Your task to perform on an android device: Open Reddit.com Image 0: 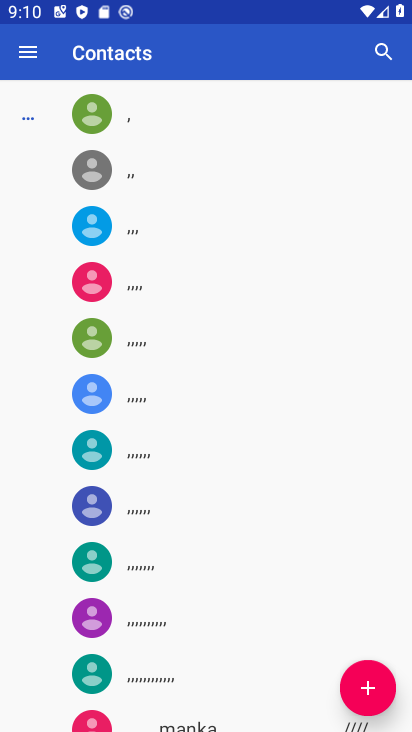
Step 0: press home button
Your task to perform on an android device: Open Reddit.com Image 1: 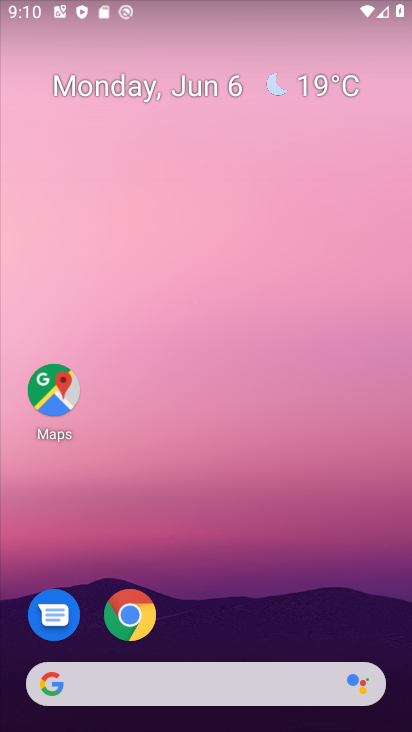
Step 1: click (138, 629)
Your task to perform on an android device: Open Reddit.com Image 2: 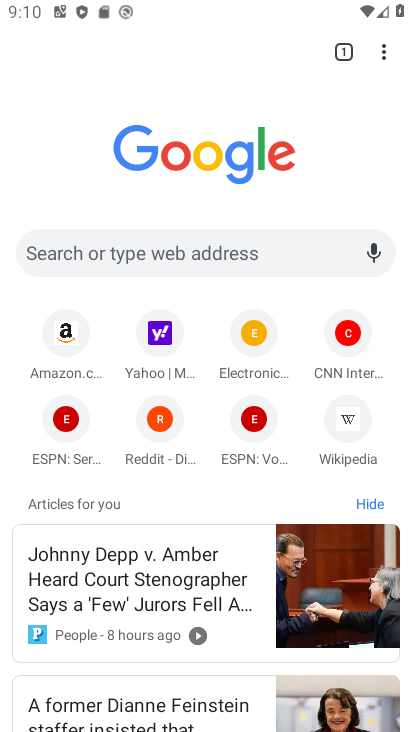
Step 2: click (150, 438)
Your task to perform on an android device: Open Reddit.com Image 3: 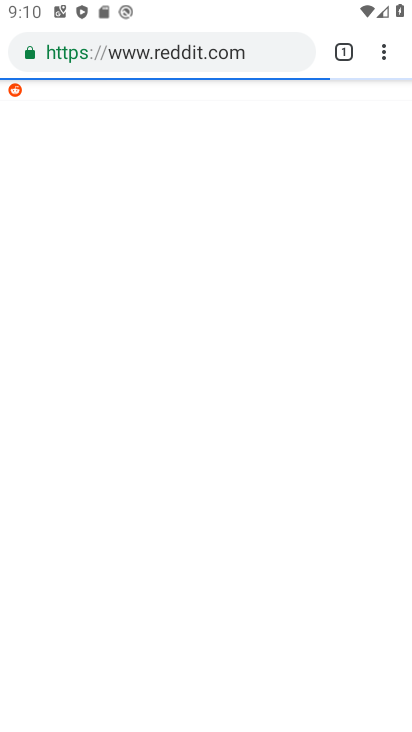
Step 3: task complete